Your task to perform on an android device: move an email to a new category in the gmail app Image 0: 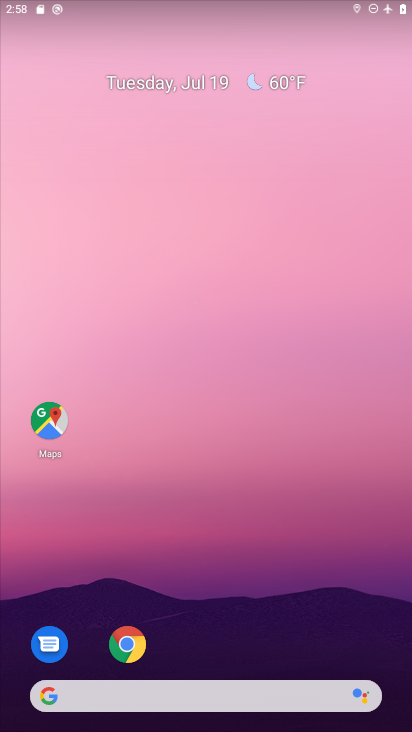
Step 0: drag from (197, 672) to (210, 168)
Your task to perform on an android device: move an email to a new category in the gmail app Image 1: 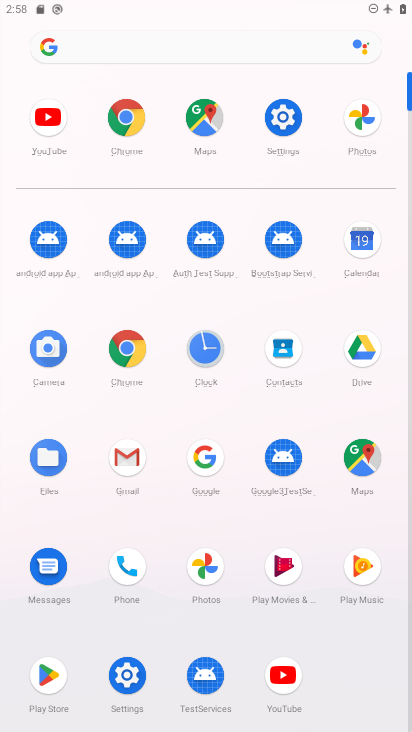
Step 1: click (125, 461)
Your task to perform on an android device: move an email to a new category in the gmail app Image 2: 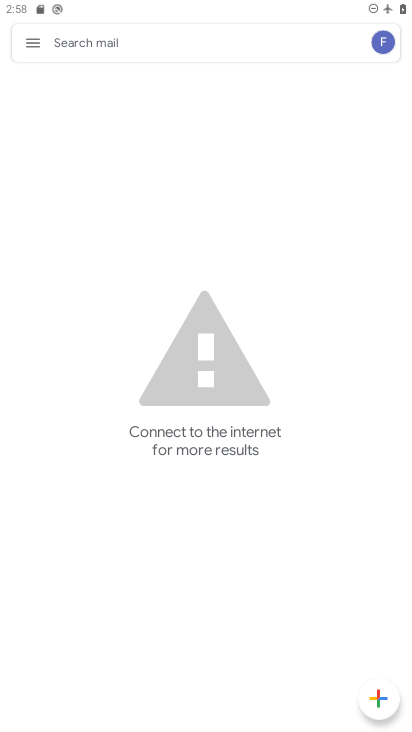
Step 2: task complete